Your task to perform on an android device: open sync settings in chrome Image 0: 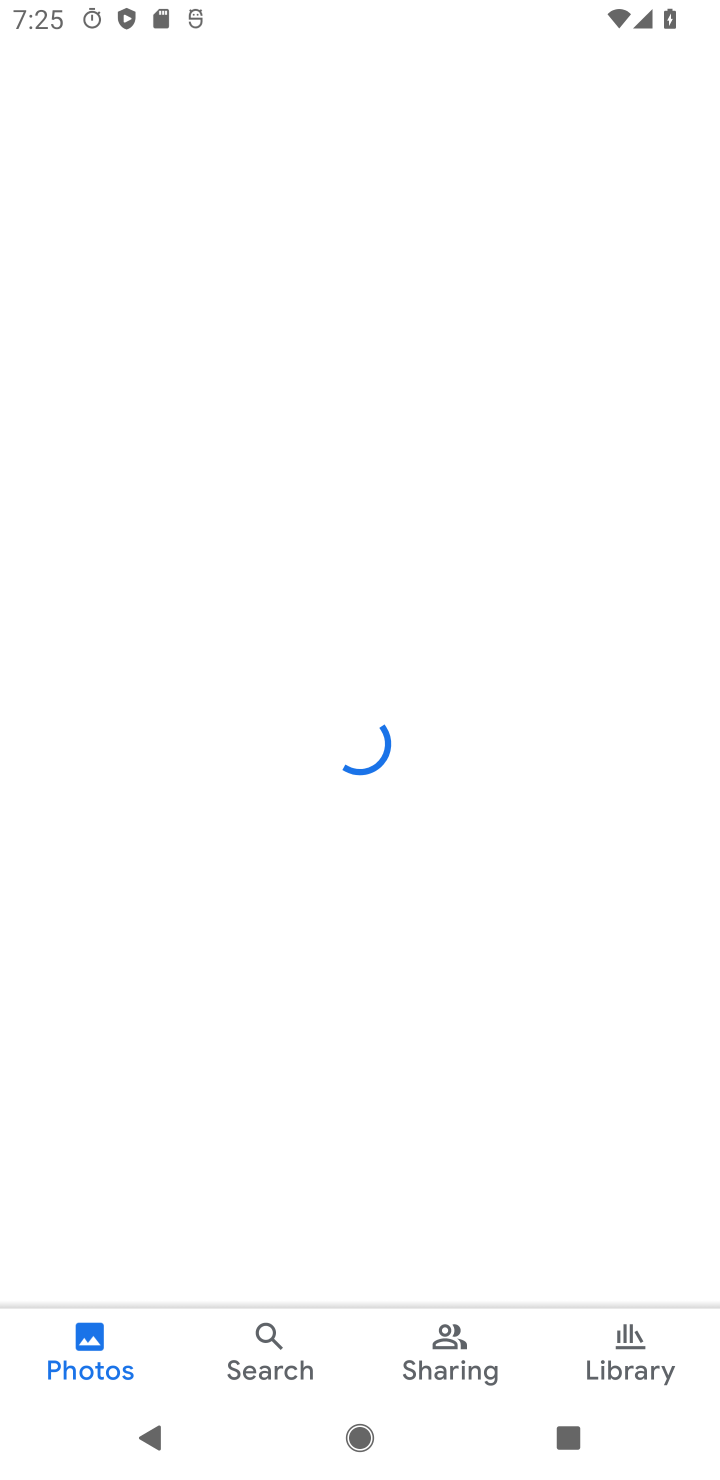
Step 0: press home button
Your task to perform on an android device: open sync settings in chrome Image 1: 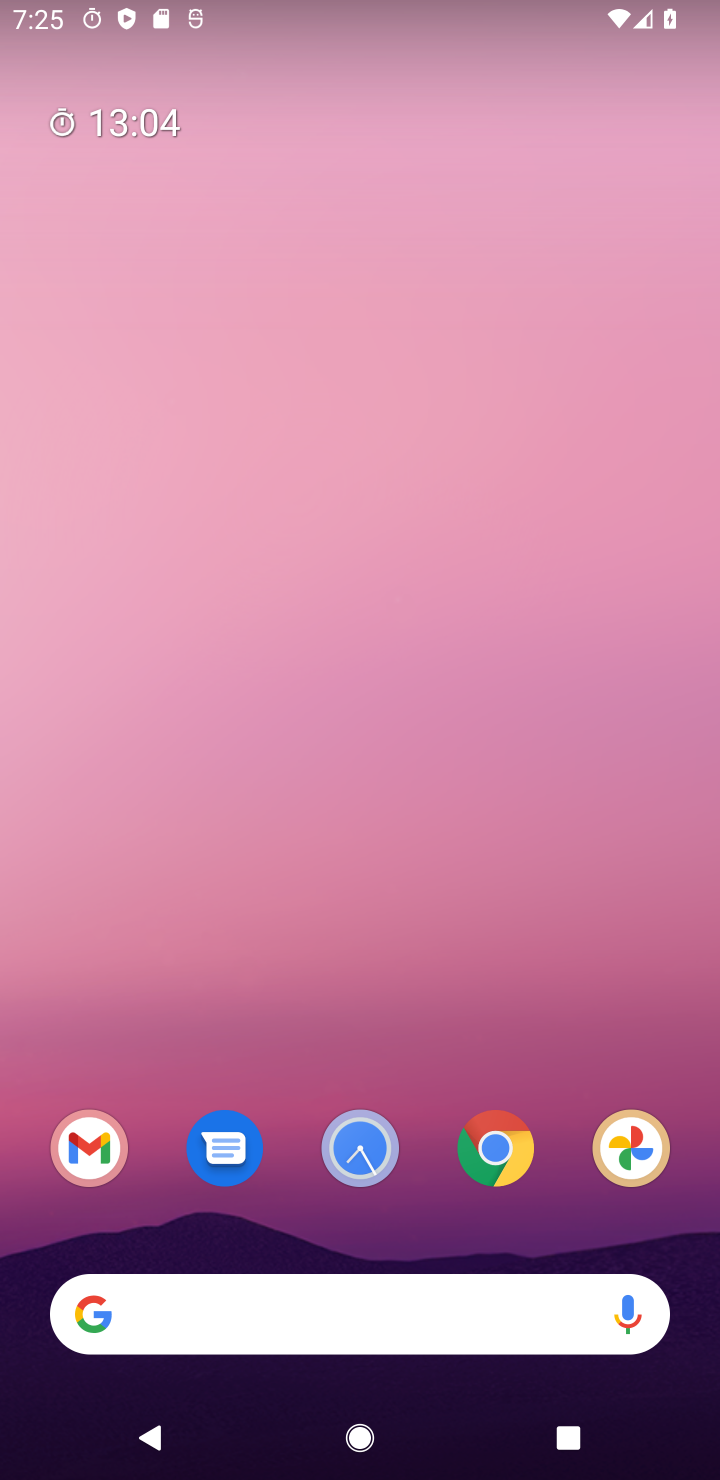
Step 1: press home button
Your task to perform on an android device: open sync settings in chrome Image 2: 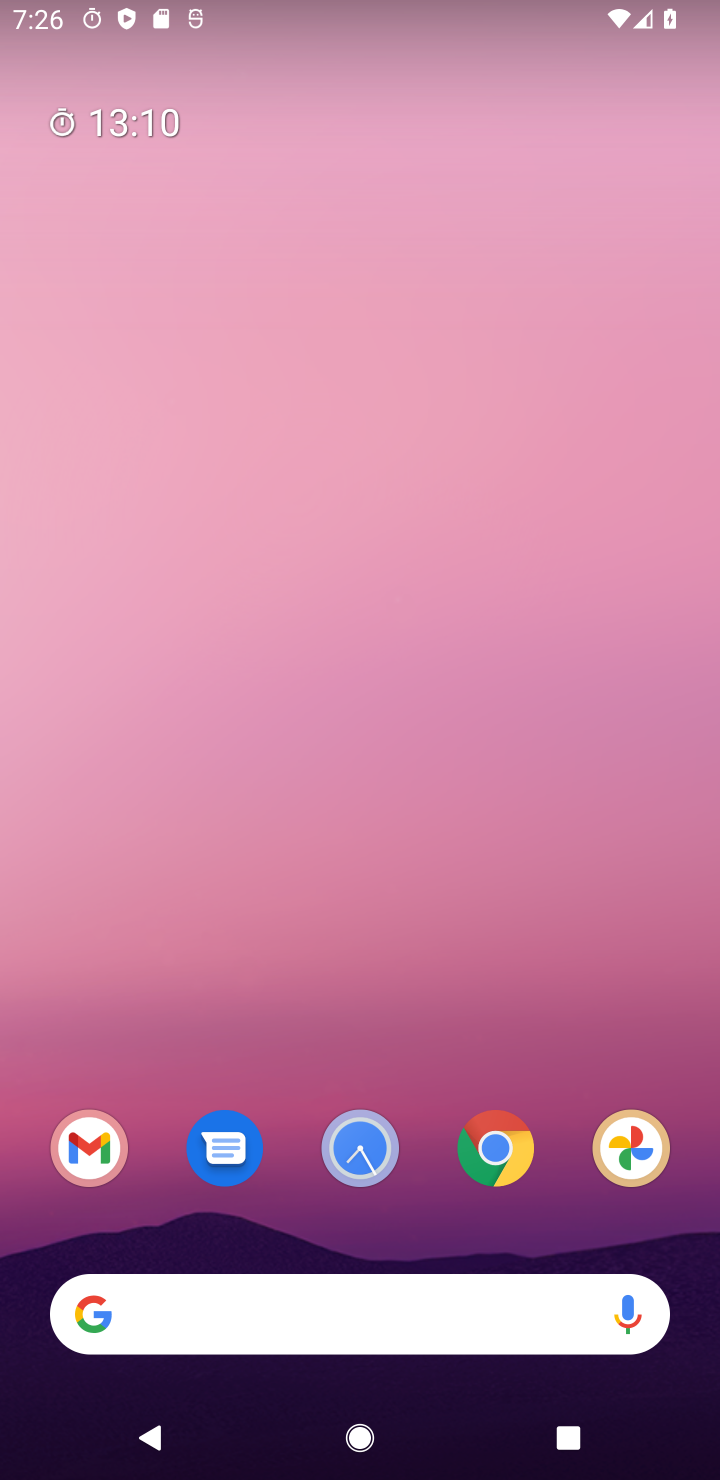
Step 2: click (499, 1152)
Your task to perform on an android device: open sync settings in chrome Image 3: 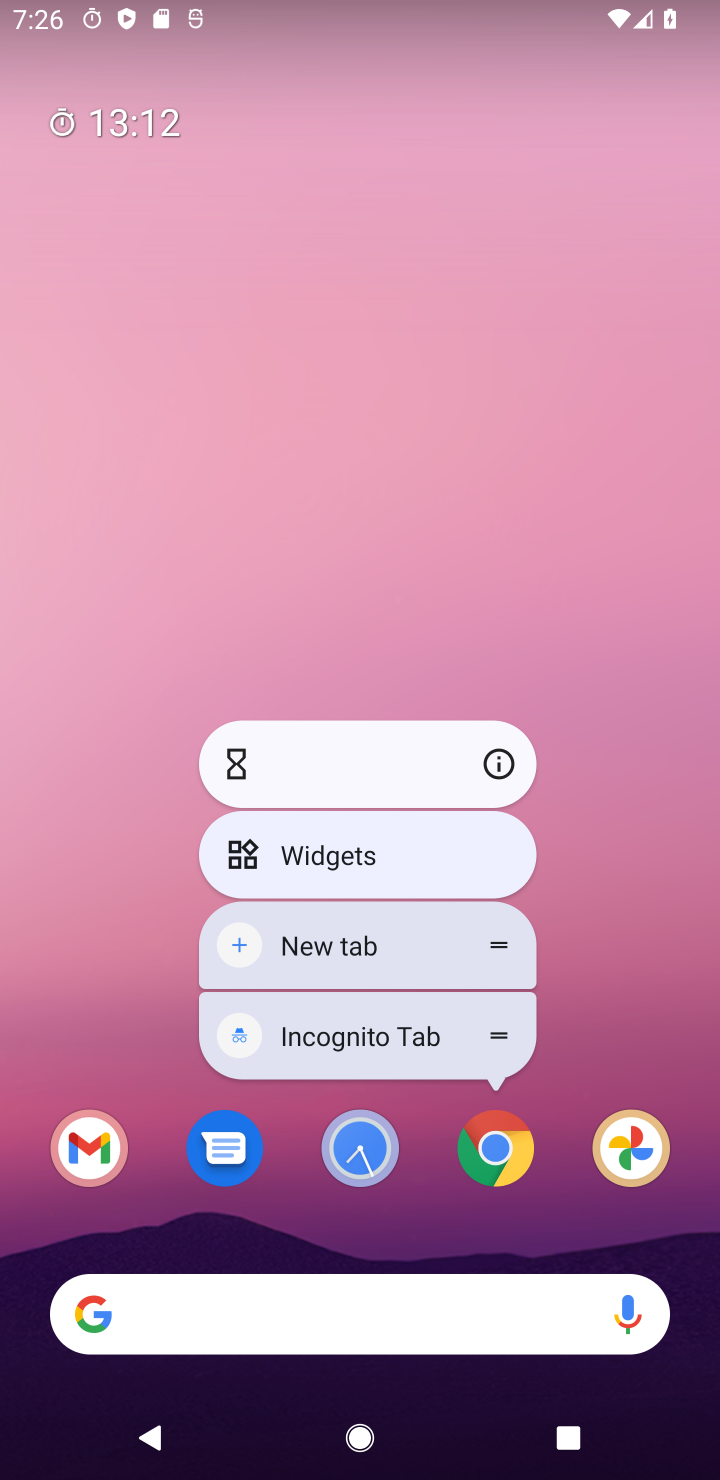
Step 3: click (499, 1152)
Your task to perform on an android device: open sync settings in chrome Image 4: 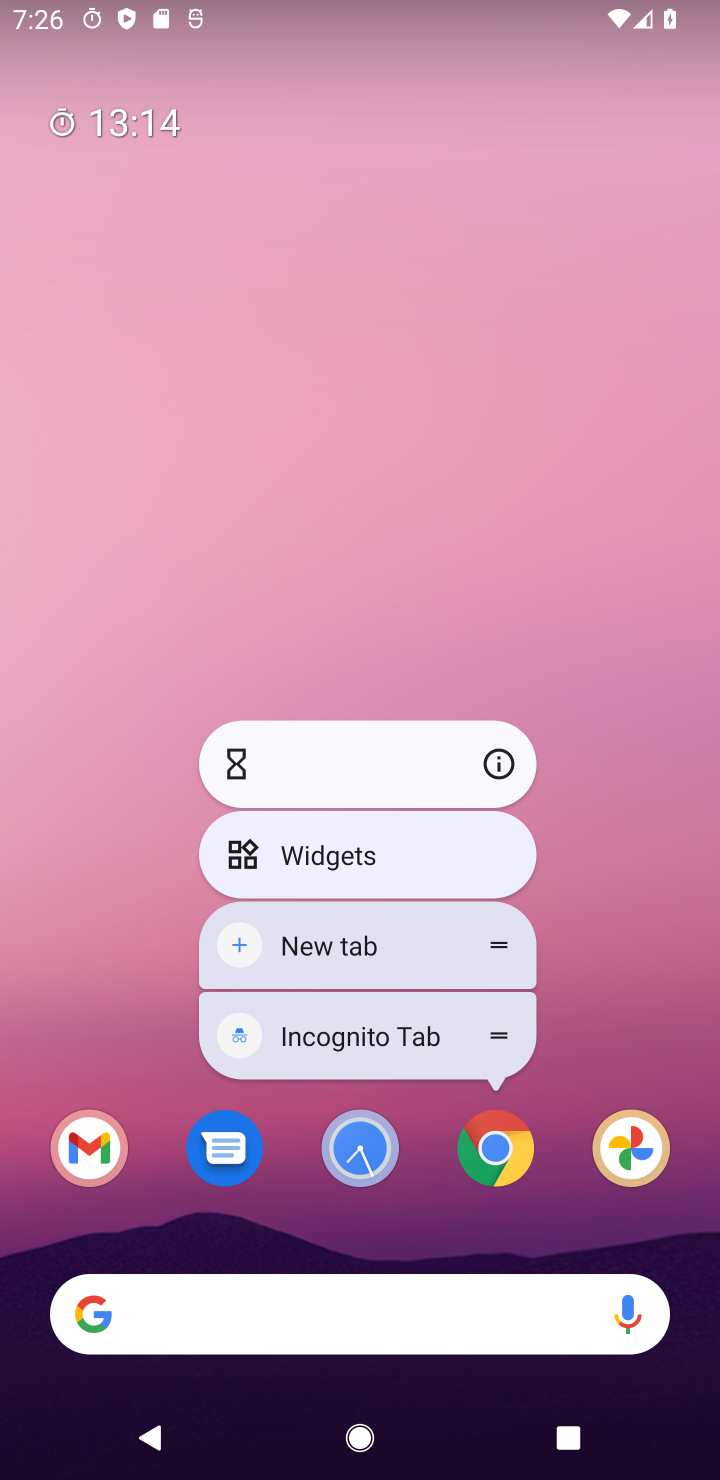
Step 4: click (499, 1152)
Your task to perform on an android device: open sync settings in chrome Image 5: 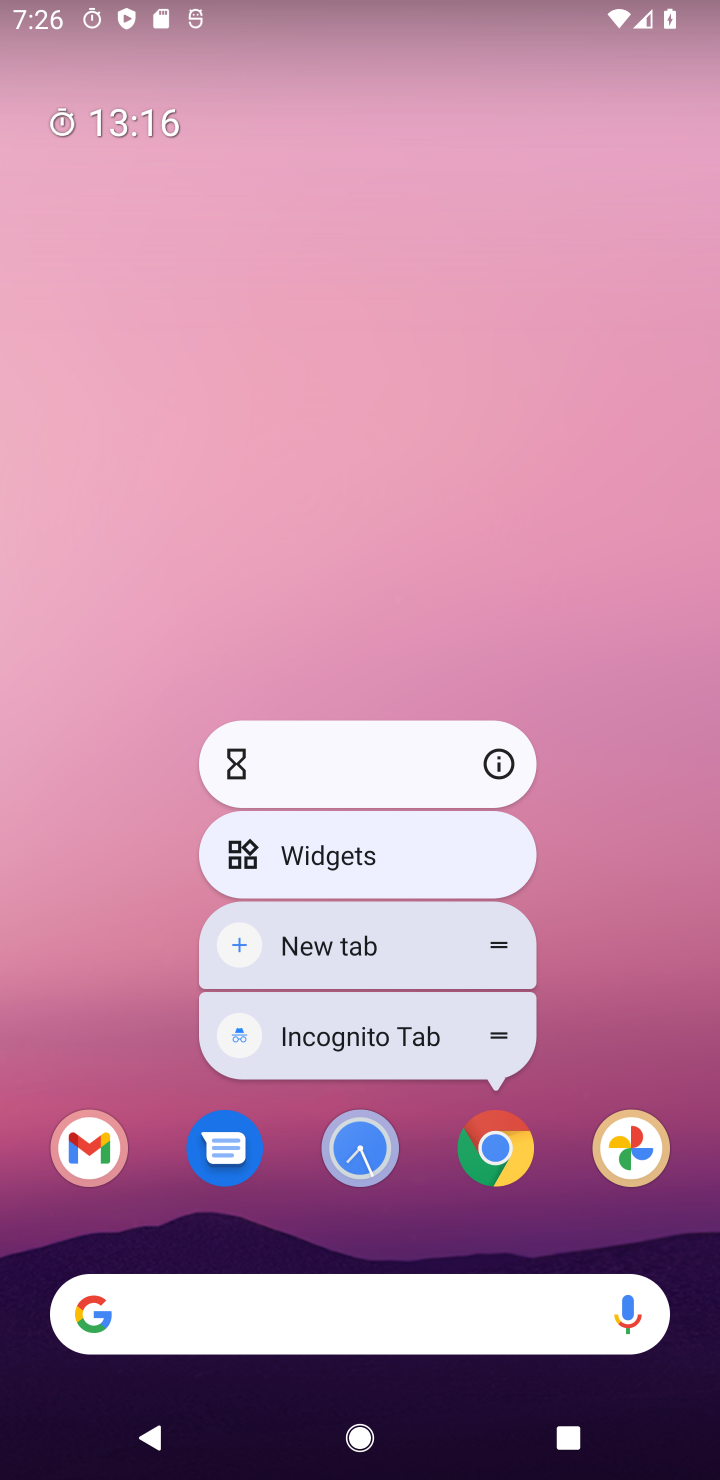
Step 5: click (499, 1152)
Your task to perform on an android device: open sync settings in chrome Image 6: 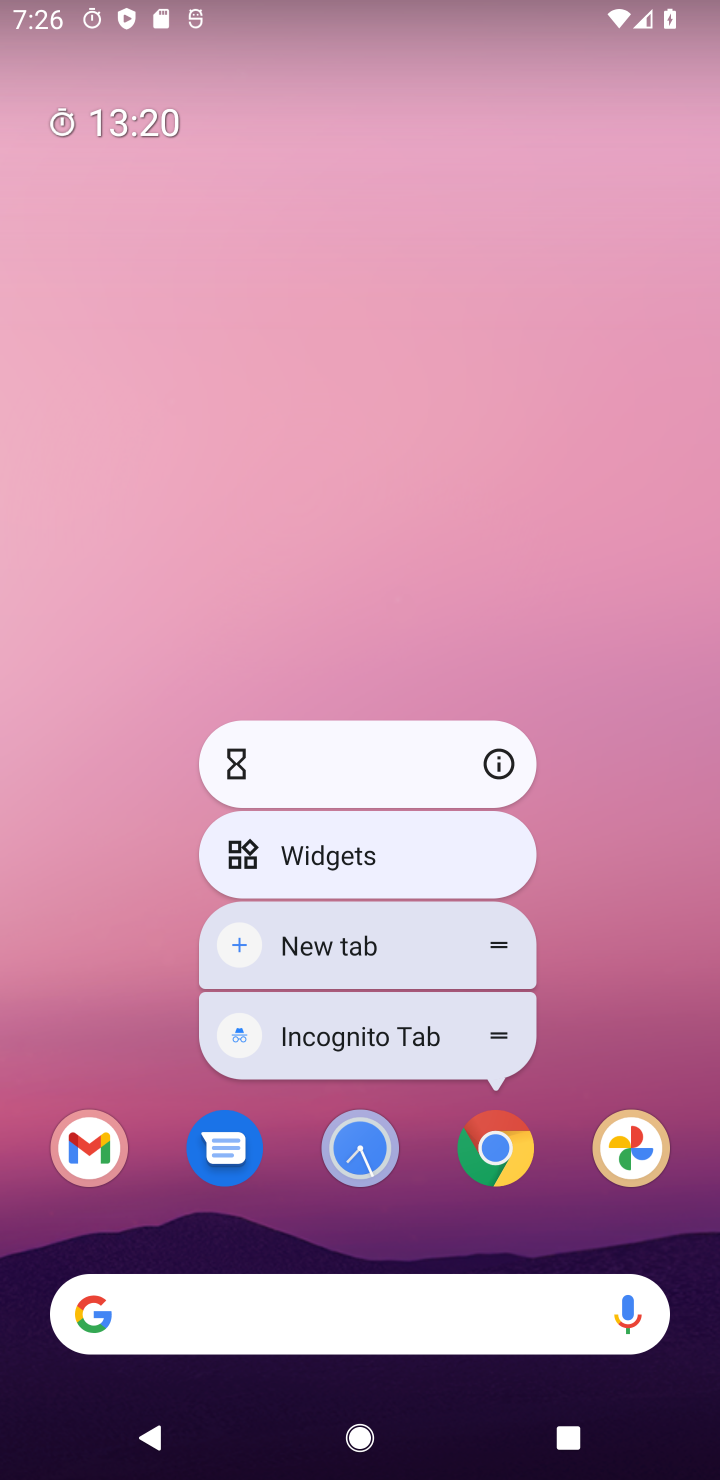
Step 6: click (499, 1152)
Your task to perform on an android device: open sync settings in chrome Image 7: 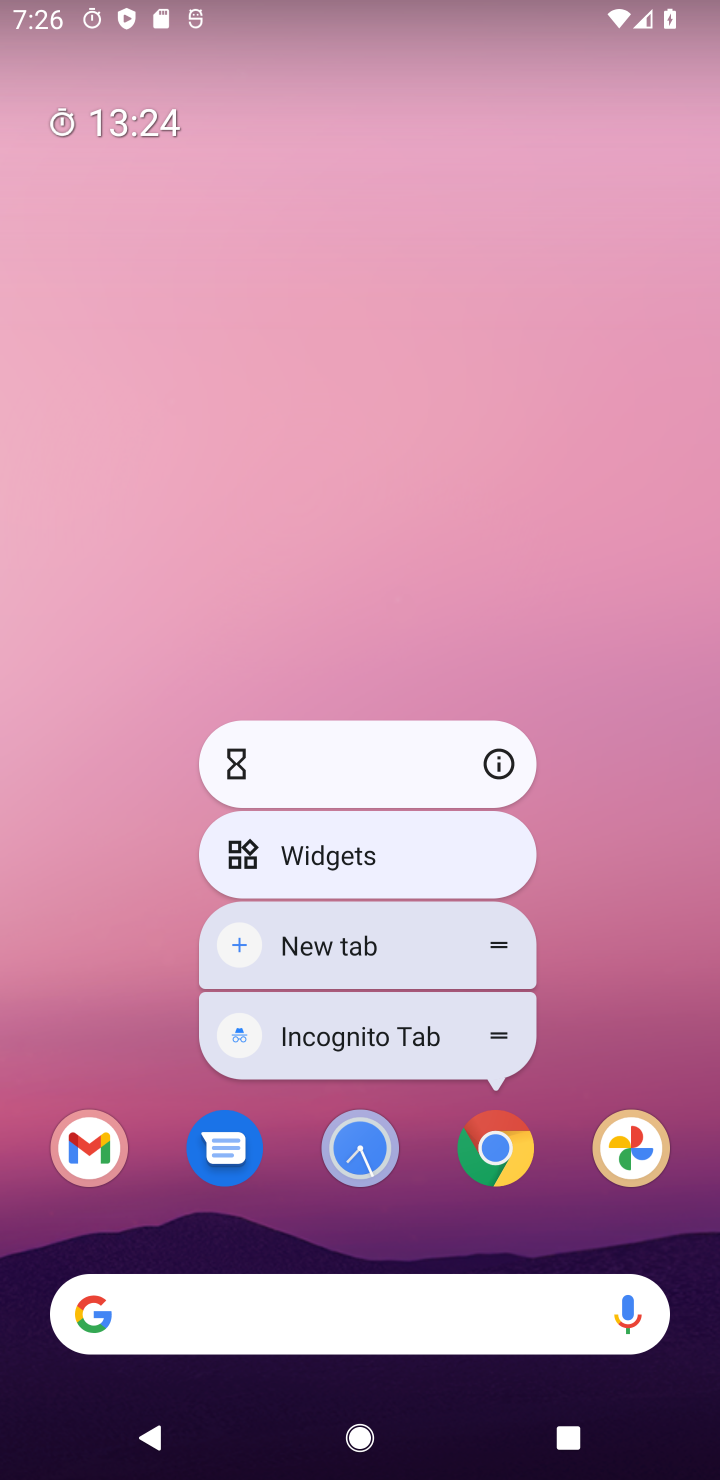
Step 7: click (499, 1152)
Your task to perform on an android device: open sync settings in chrome Image 8: 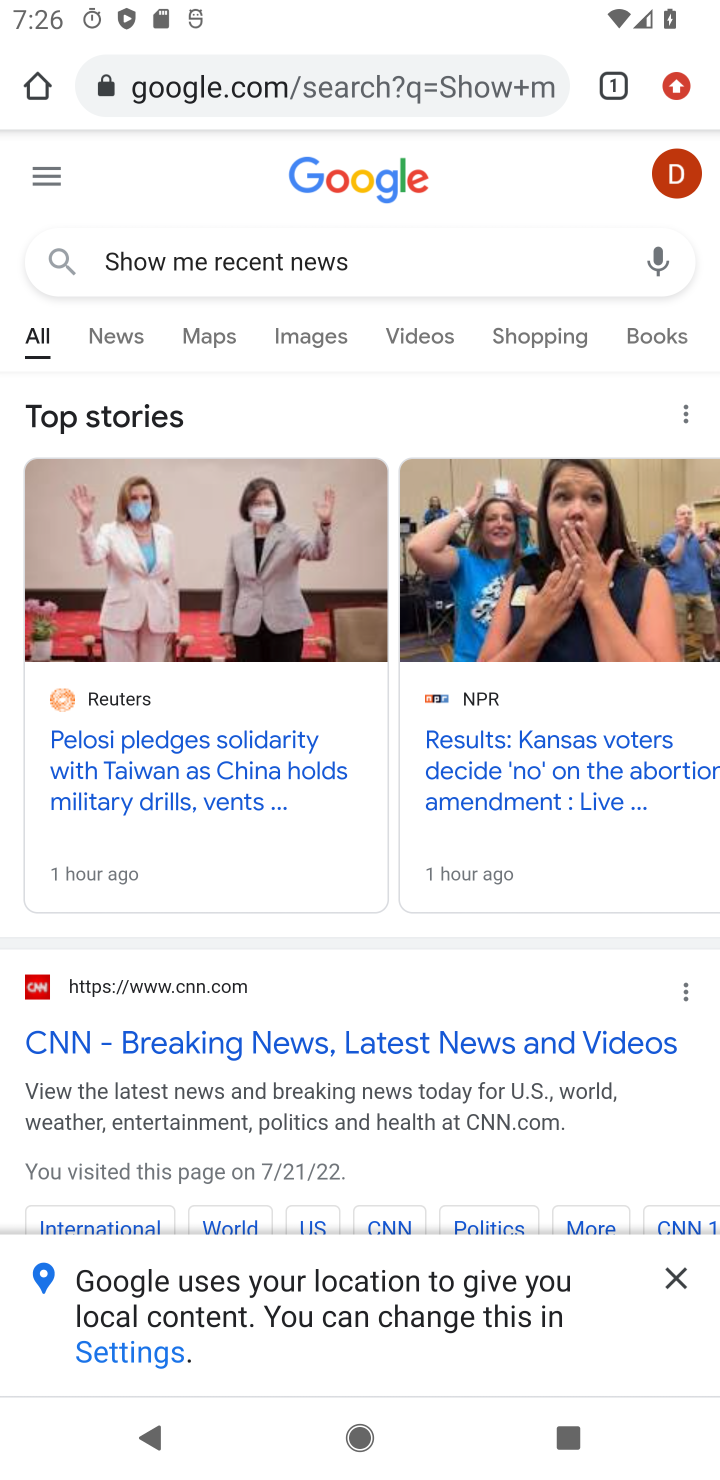
Step 8: drag from (692, 85) to (431, 1126)
Your task to perform on an android device: open sync settings in chrome Image 9: 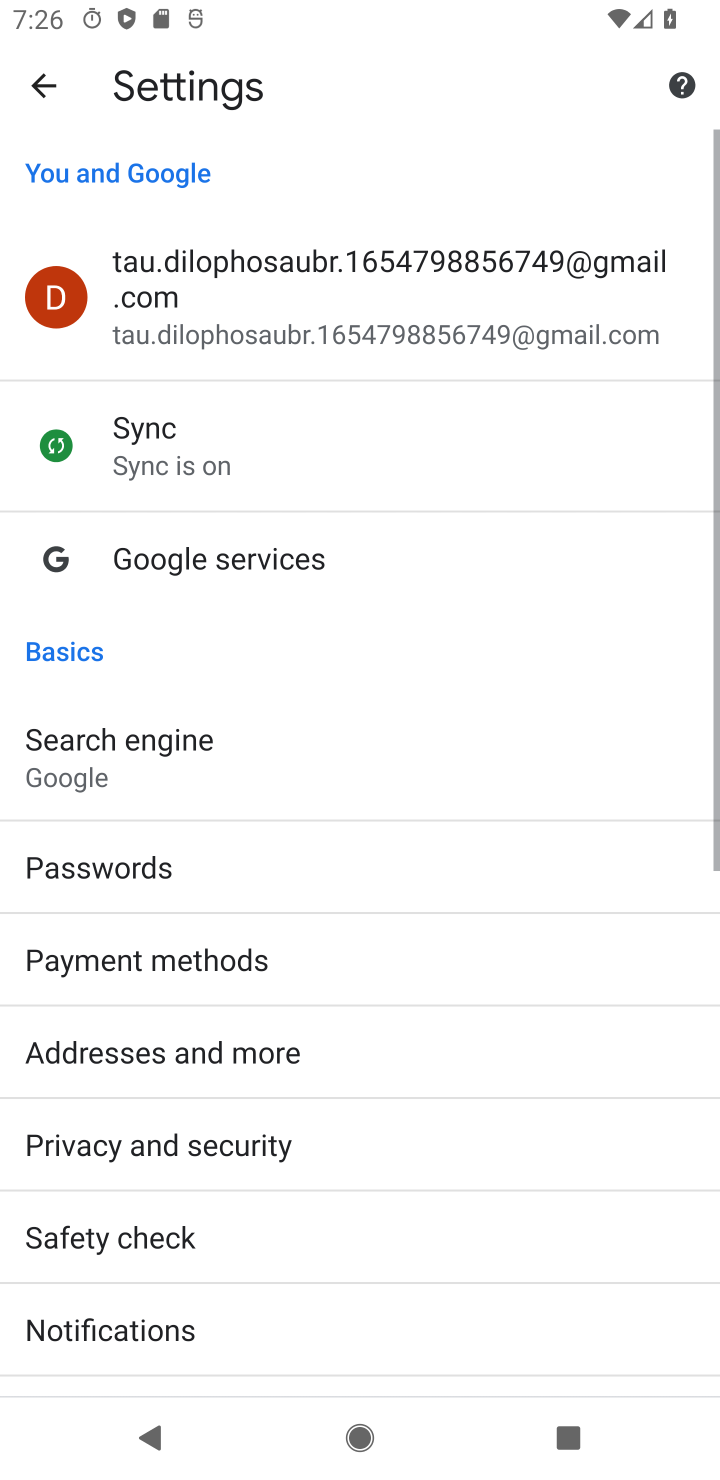
Step 9: click (245, 278)
Your task to perform on an android device: open sync settings in chrome Image 10: 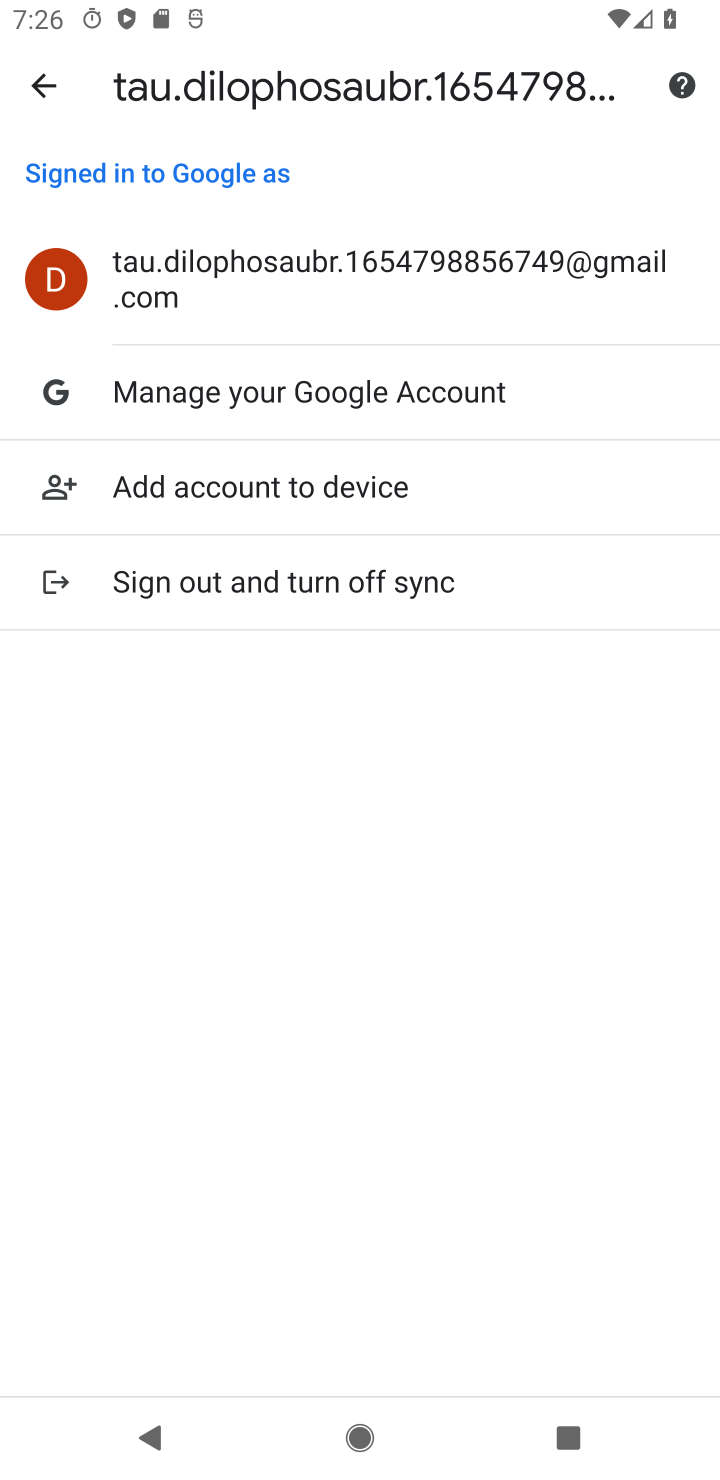
Step 10: click (54, 76)
Your task to perform on an android device: open sync settings in chrome Image 11: 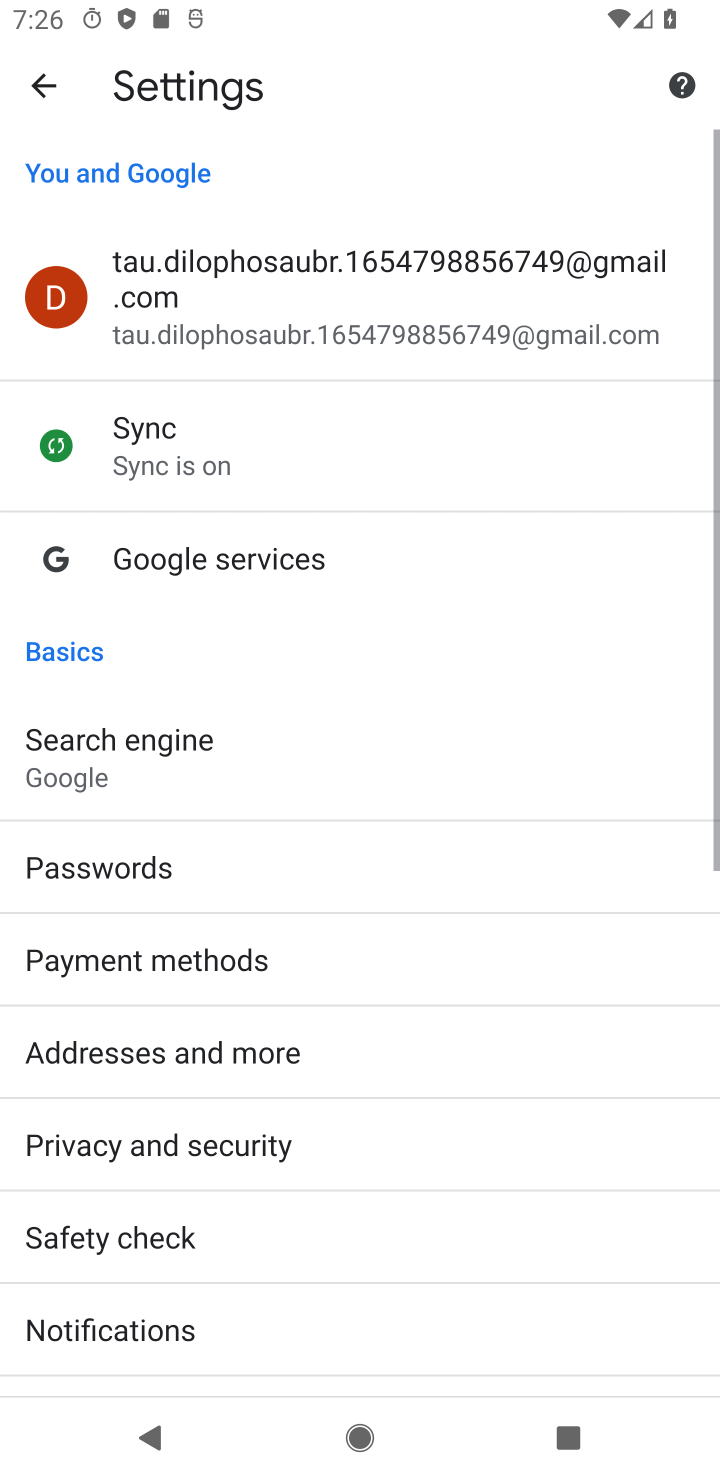
Step 11: click (244, 457)
Your task to perform on an android device: open sync settings in chrome Image 12: 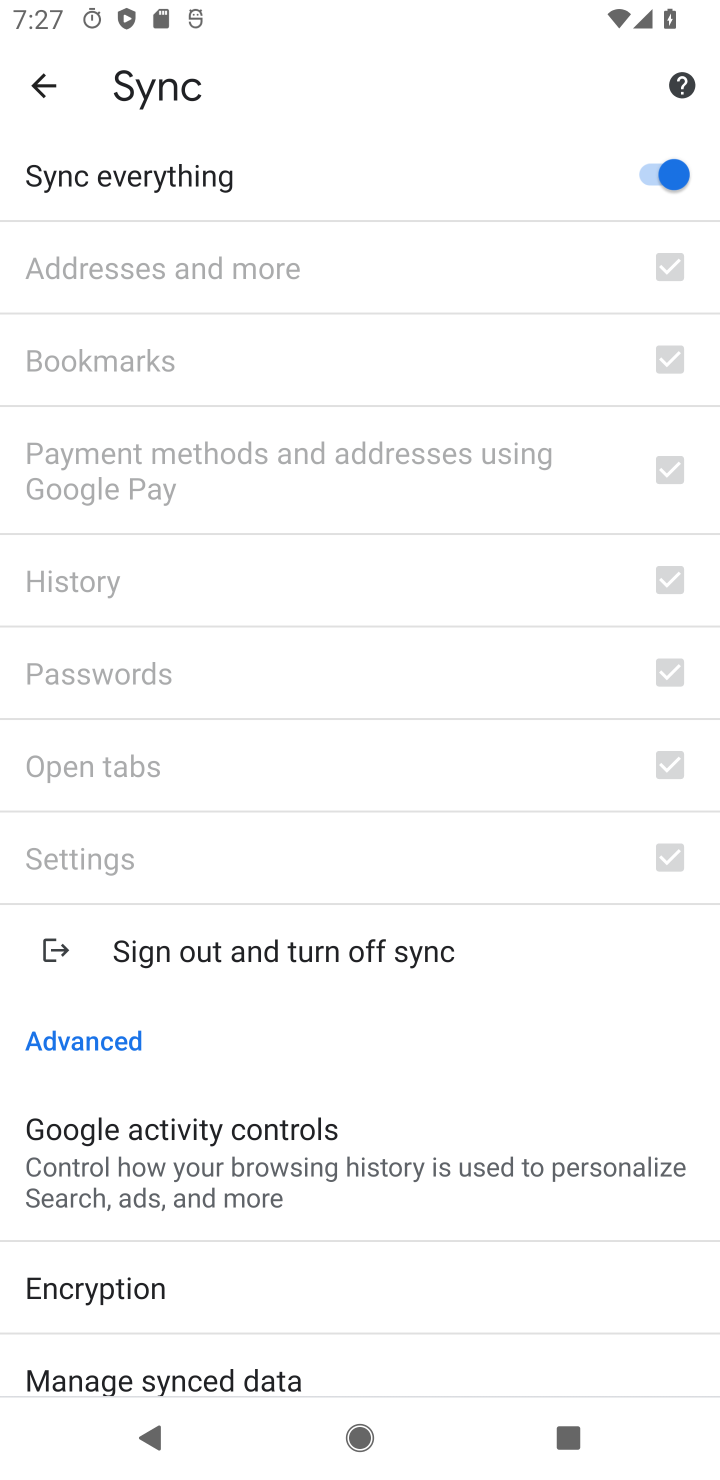
Step 12: task complete